Your task to perform on an android device: Clear the shopping cart on amazon. Search for "bose soundlink mini" on amazon, select the first entry, add it to the cart, then select checkout. Image 0: 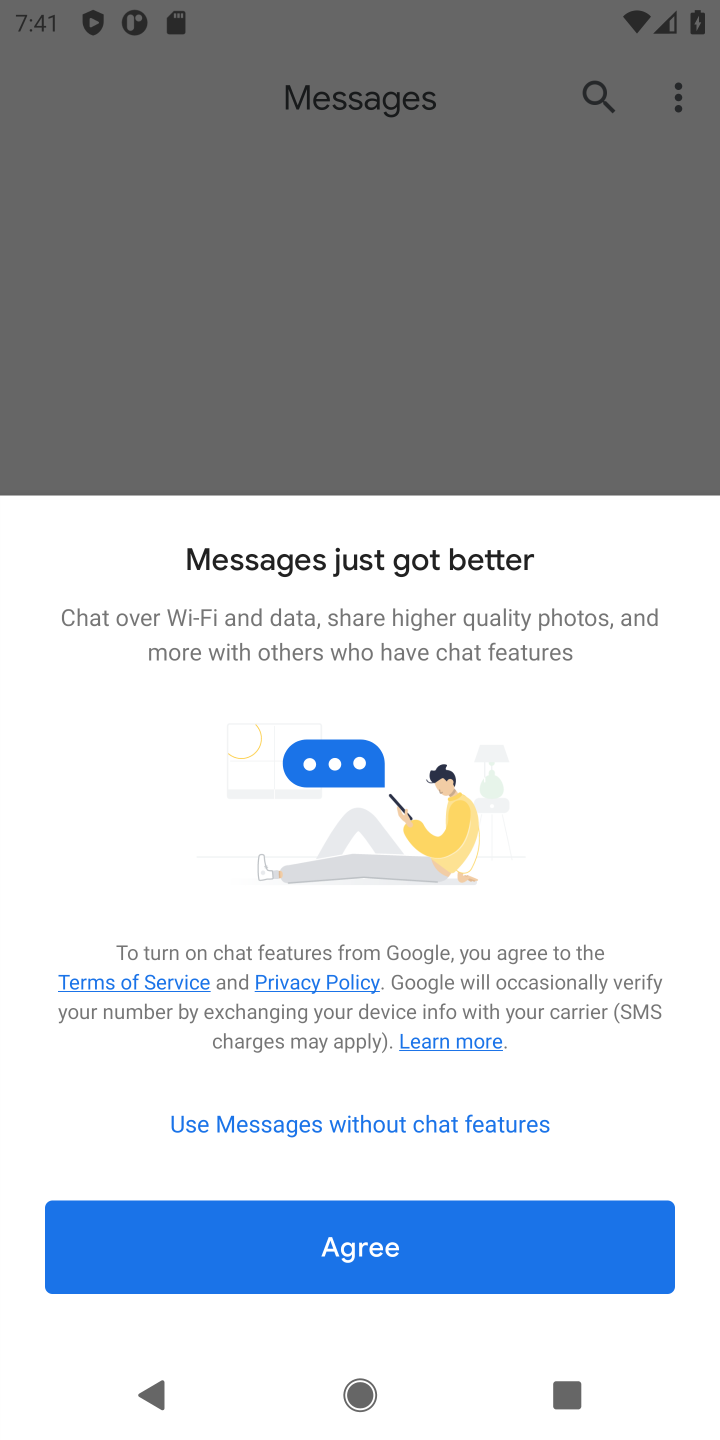
Step 0: press home button
Your task to perform on an android device: Clear the shopping cart on amazon. Search for "bose soundlink mini" on amazon, select the first entry, add it to the cart, then select checkout. Image 1: 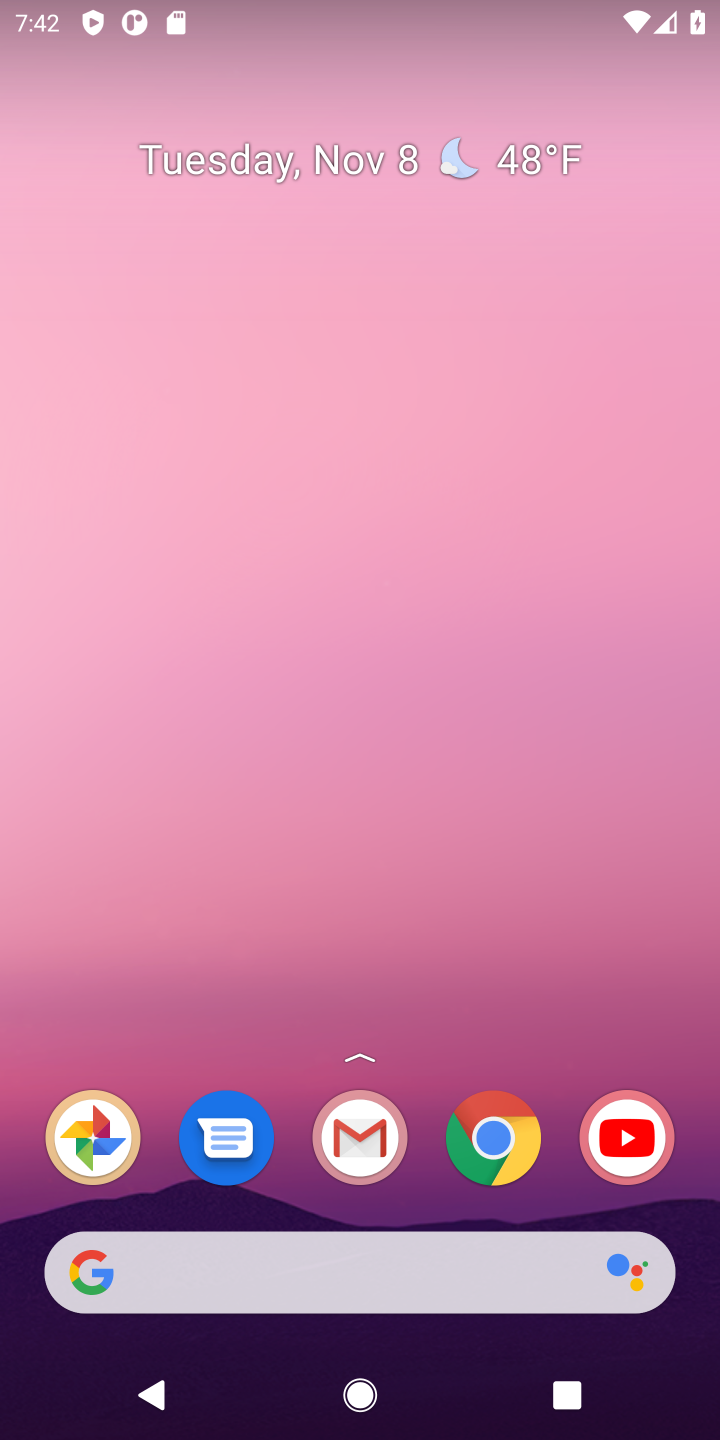
Step 1: click (477, 1140)
Your task to perform on an android device: Clear the shopping cart on amazon. Search for "bose soundlink mini" on amazon, select the first entry, add it to the cart, then select checkout. Image 2: 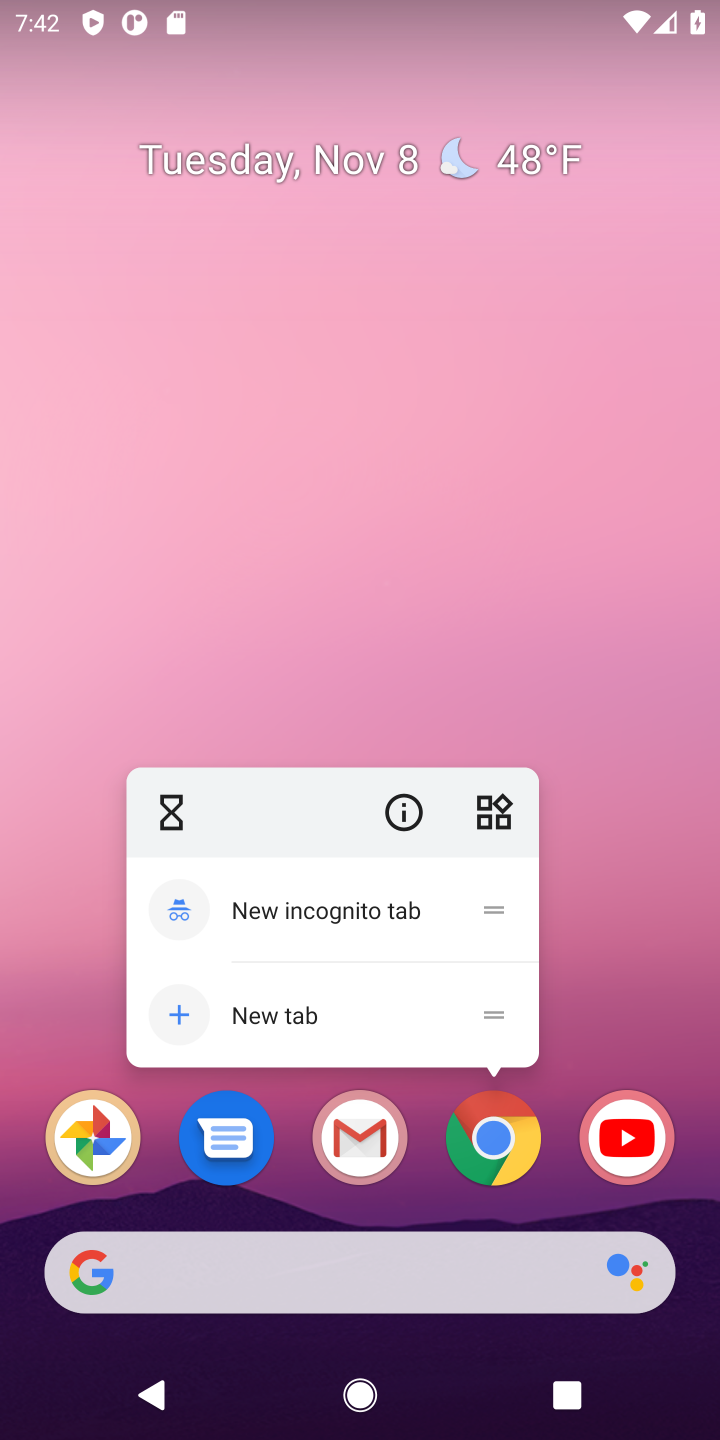
Step 2: click (496, 1140)
Your task to perform on an android device: Clear the shopping cart on amazon. Search for "bose soundlink mini" on amazon, select the first entry, add it to the cart, then select checkout. Image 3: 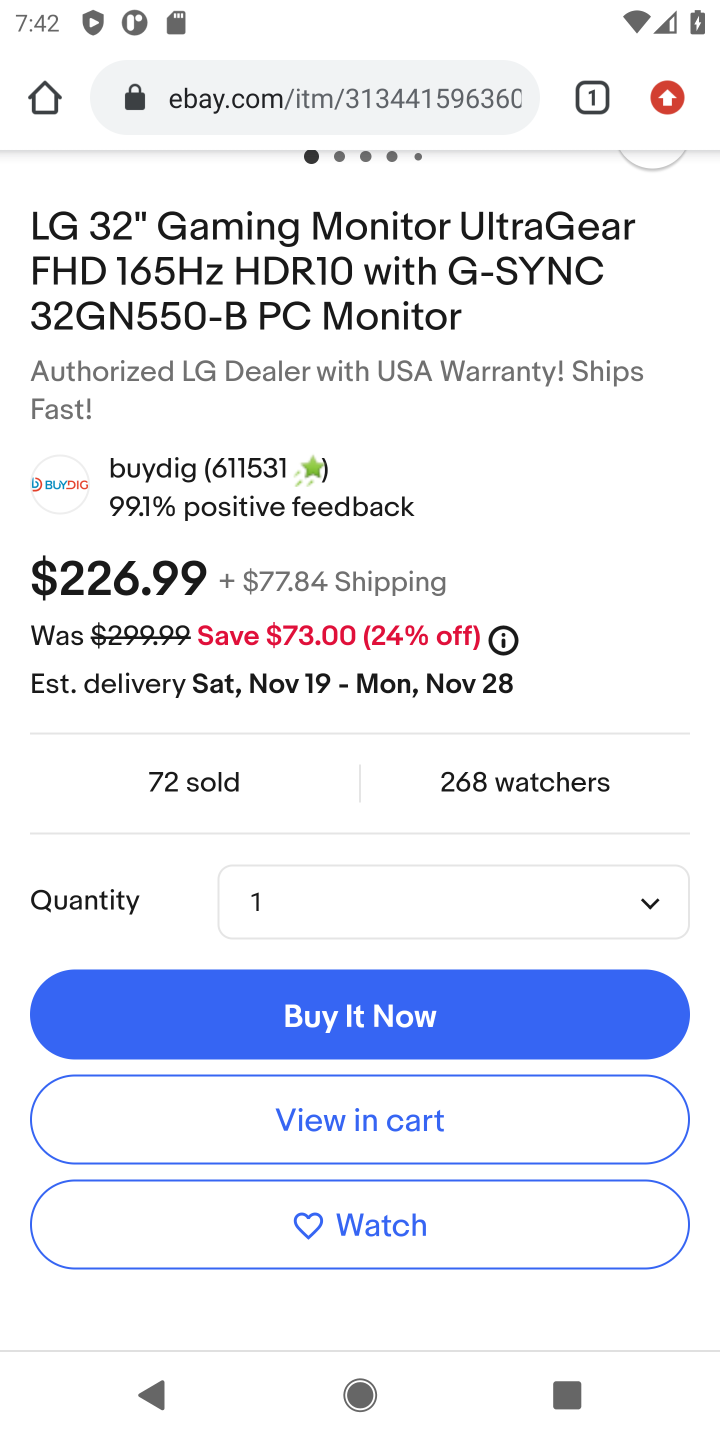
Step 3: click (399, 84)
Your task to perform on an android device: Clear the shopping cart on amazon. Search for "bose soundlink mini" on amazon, select the first entry, add it to the cart, then select checkout. Image 4: 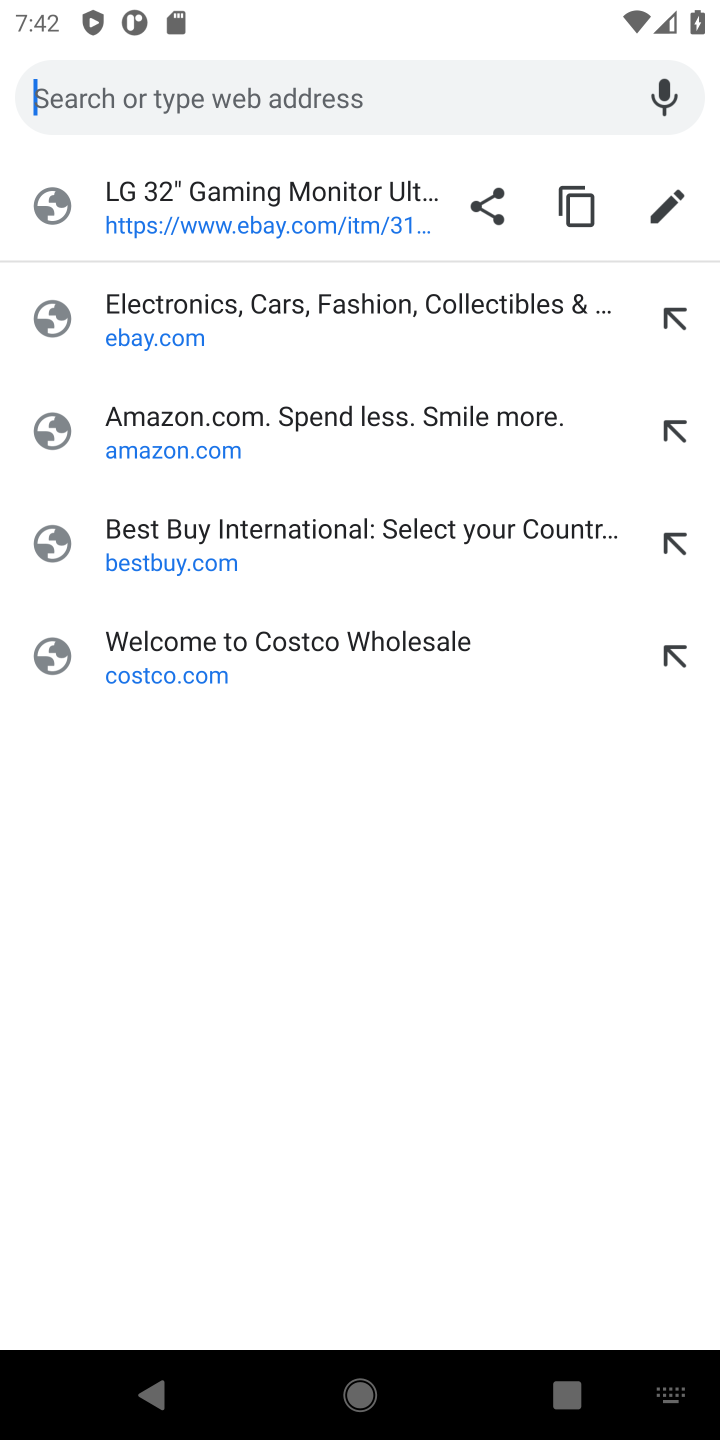
Step 4: click (186, 447)
Your task to perform on an android device: Clear the shopping cart on amazon. Search for "bose soundlink mini" on amazon, select the first entry, add it to the cart, then select checkout. Image 5: 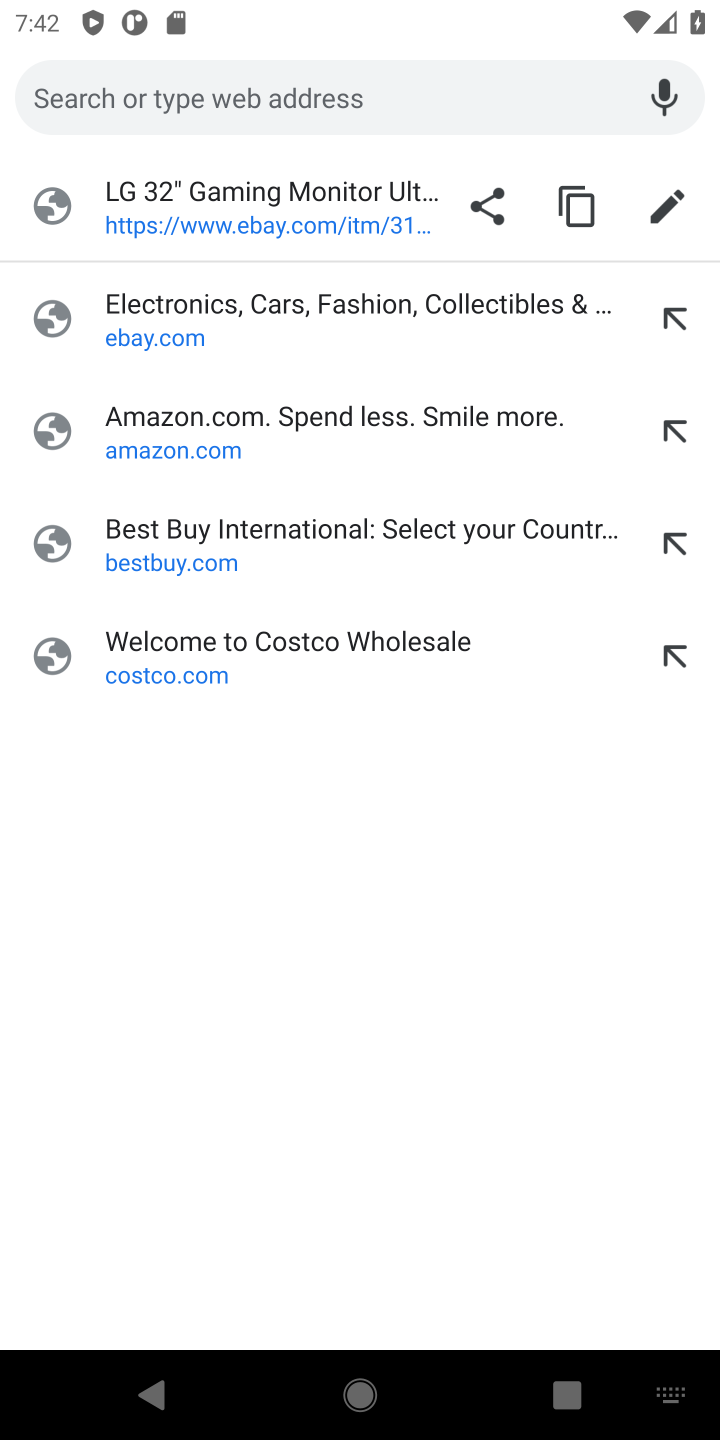
Step 5: click (162, 450)
Your task to perform on an android device: Clear the shopping cart on amazon. Search for "bose soundlink mini" on amazon, select the first entry, add it to the cart, then select checkout. Image 6: 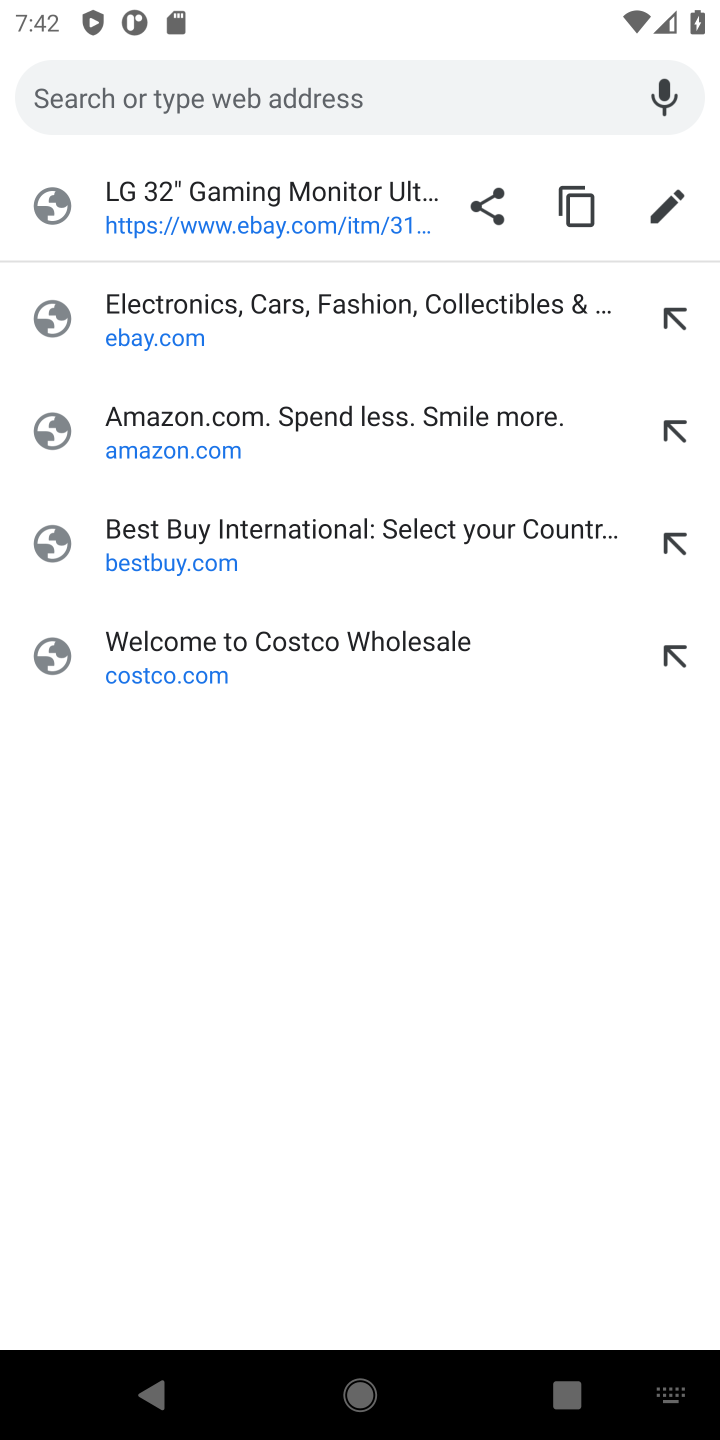
Step 6: click (153, 442)
Your task to perform on an android device: Clear the shopping cart on amazon. Search for "bose soundlink mini" on amazon, select the first entry, add it to the cart, then select checkout. Image 7: 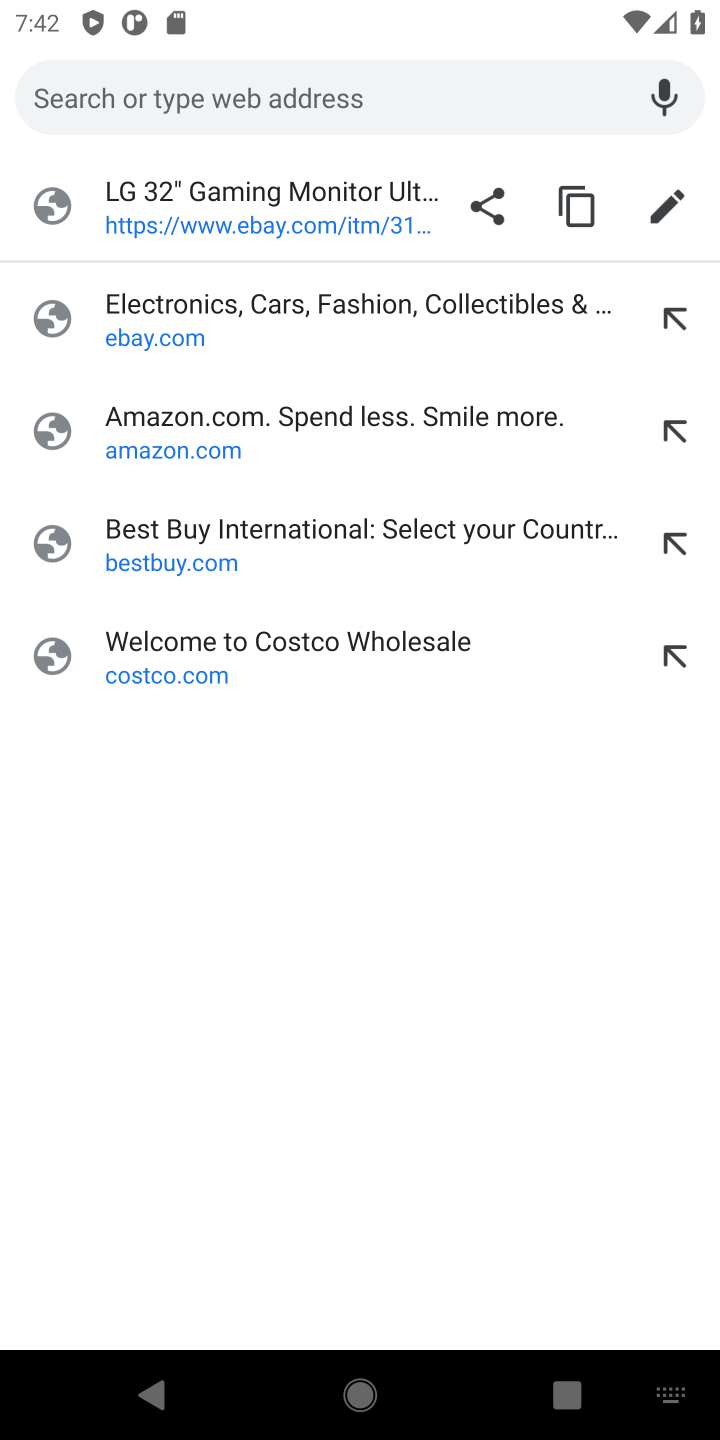
Step 7: click (173, 408)
Your task to perform on an android device: Clear the shopping cart on amazon. Search for "bose soundlink mini" on amazon, select the first entry, add it to the cart, then select checkout. Image 8: 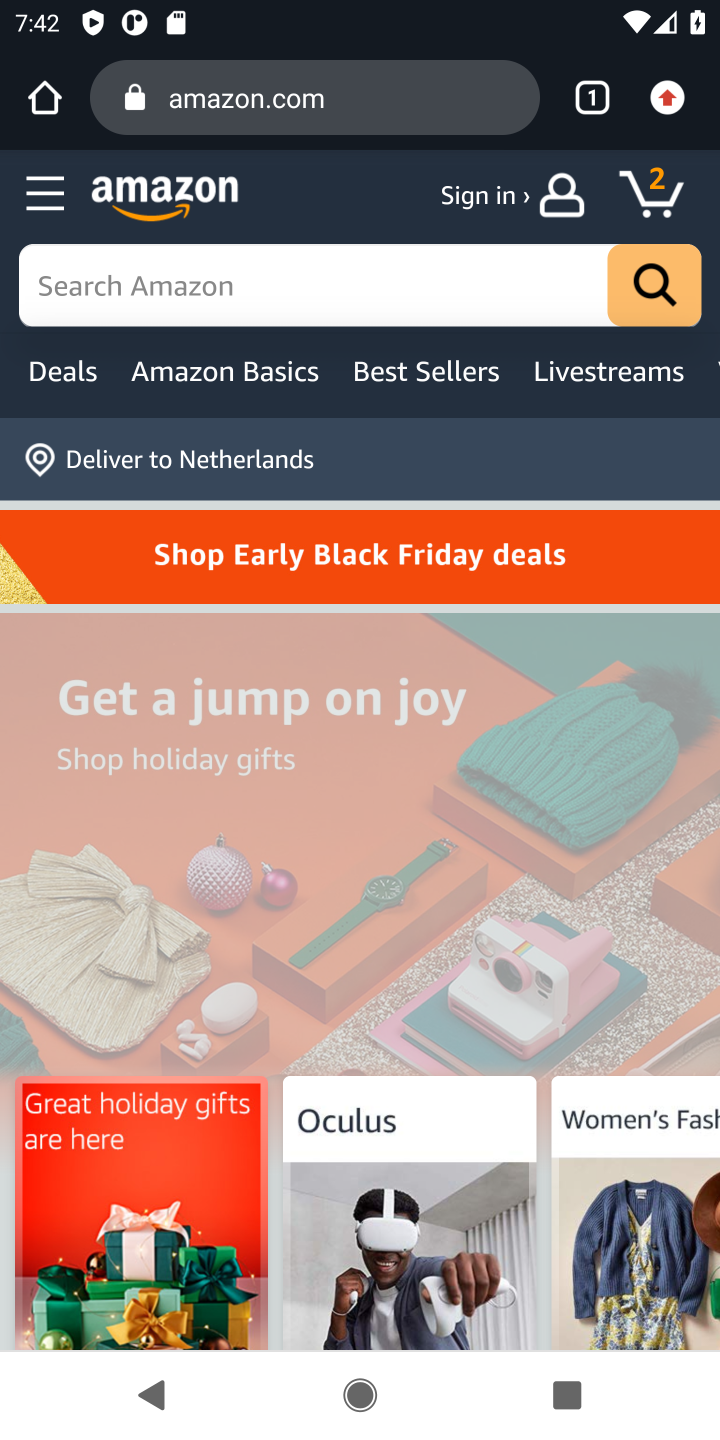
Step 8: click (643, 183)
Your task to perform on an android device: Clear the shopping cart on amazon. Search for "bose soundlink mini" on amazon, select the first entry, add it to the cart, then select checkout. Image 9: 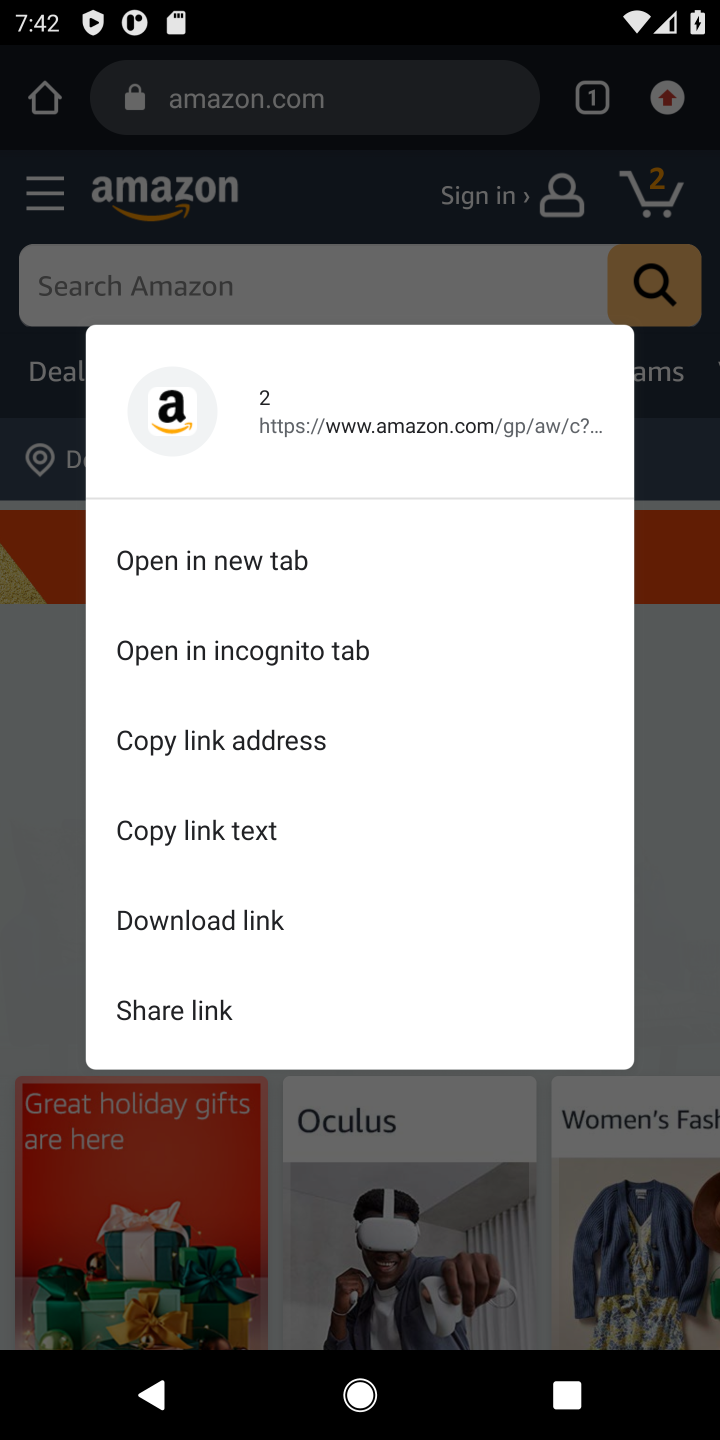
Step 9: click (662, 194)
Your task to perform on an android device: Clear the shopping cart on amazon. Search for "bose soundlink mini" on amazon, select the first entry, add it to the cart, then select checkout. Image 10: 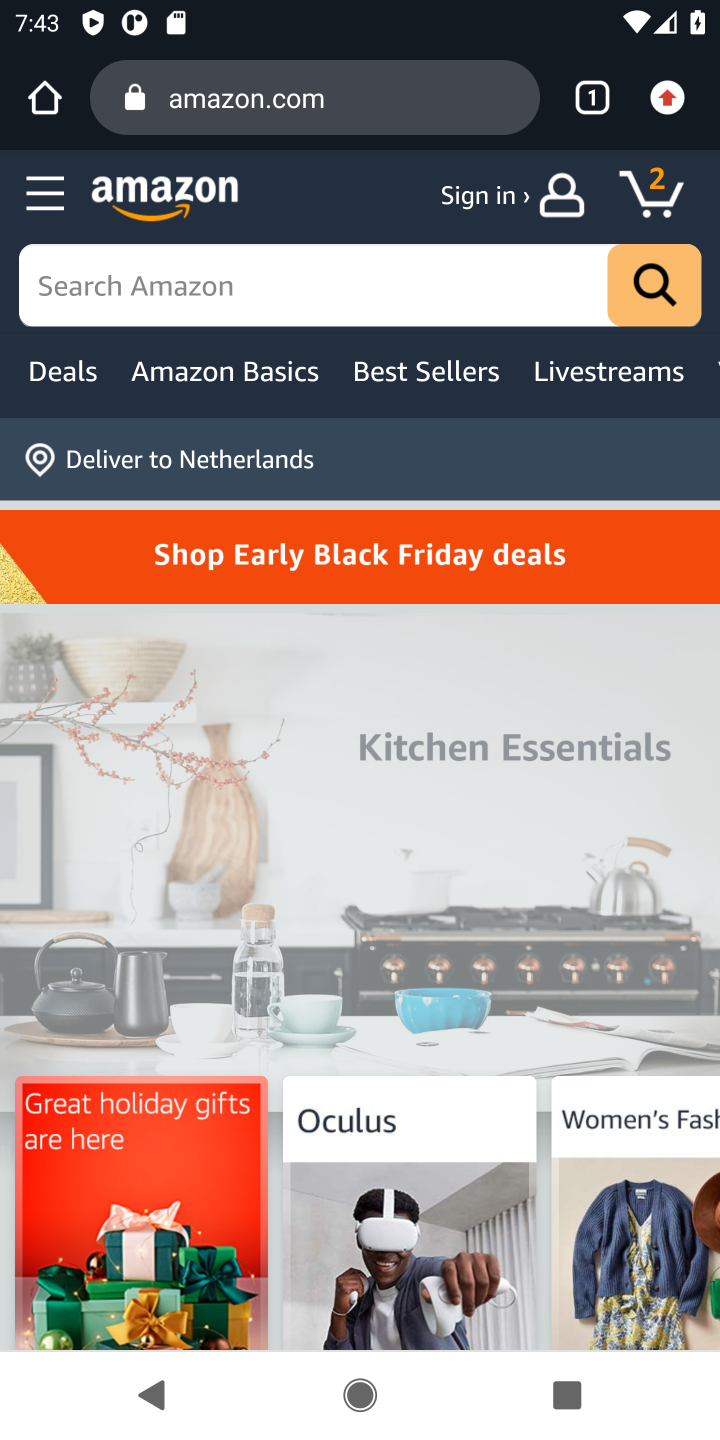
Step 10: click (666, 178)
Your task to perform on an android device: Clear the shopping cart on amazon. Search for "bose soundlink mini" on amazon, select the first entry, add it to the cart, then select checkout. Image 11: 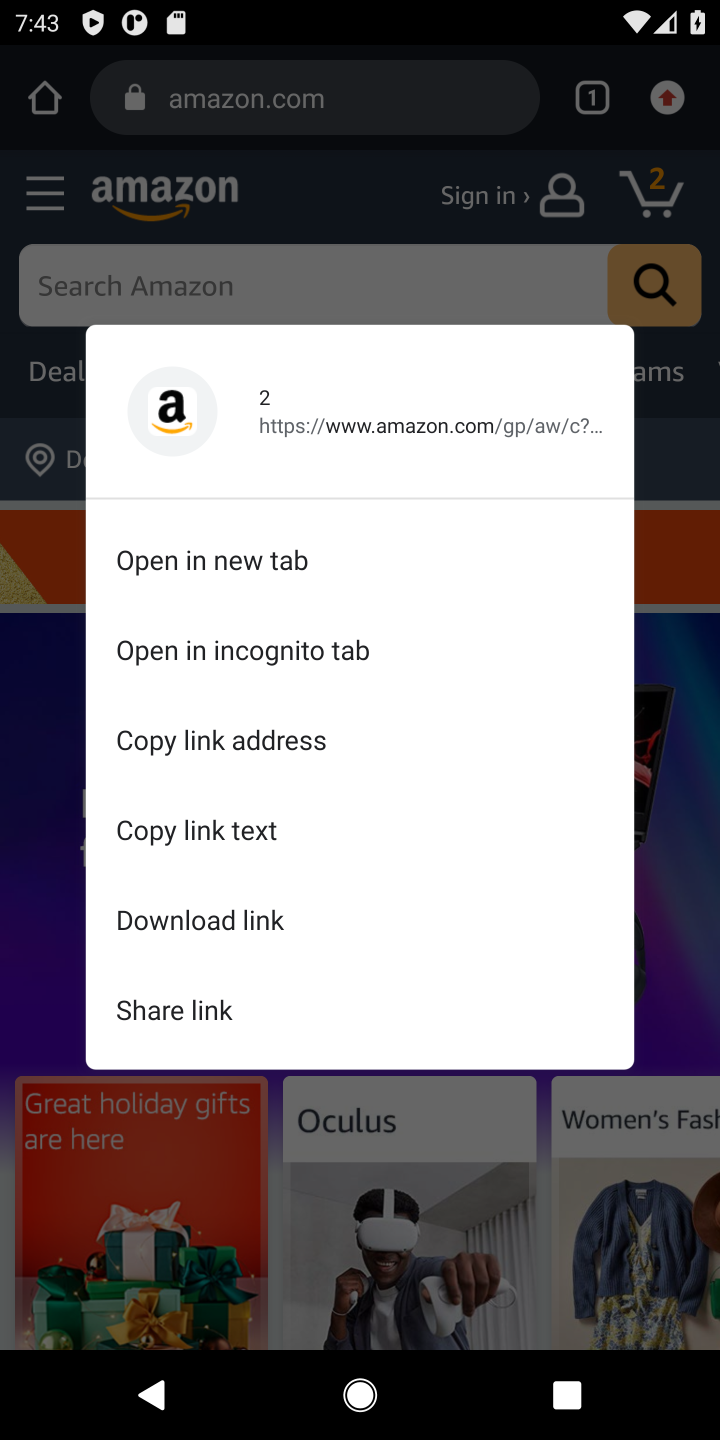
Step 11: click (668, 190)
Your task to perform on an android device: Clear the shopping cart on amazon. Search for "bose soundlink mini" on amazon, select the first entry, add it to the cart, then select checkout. Image 12: 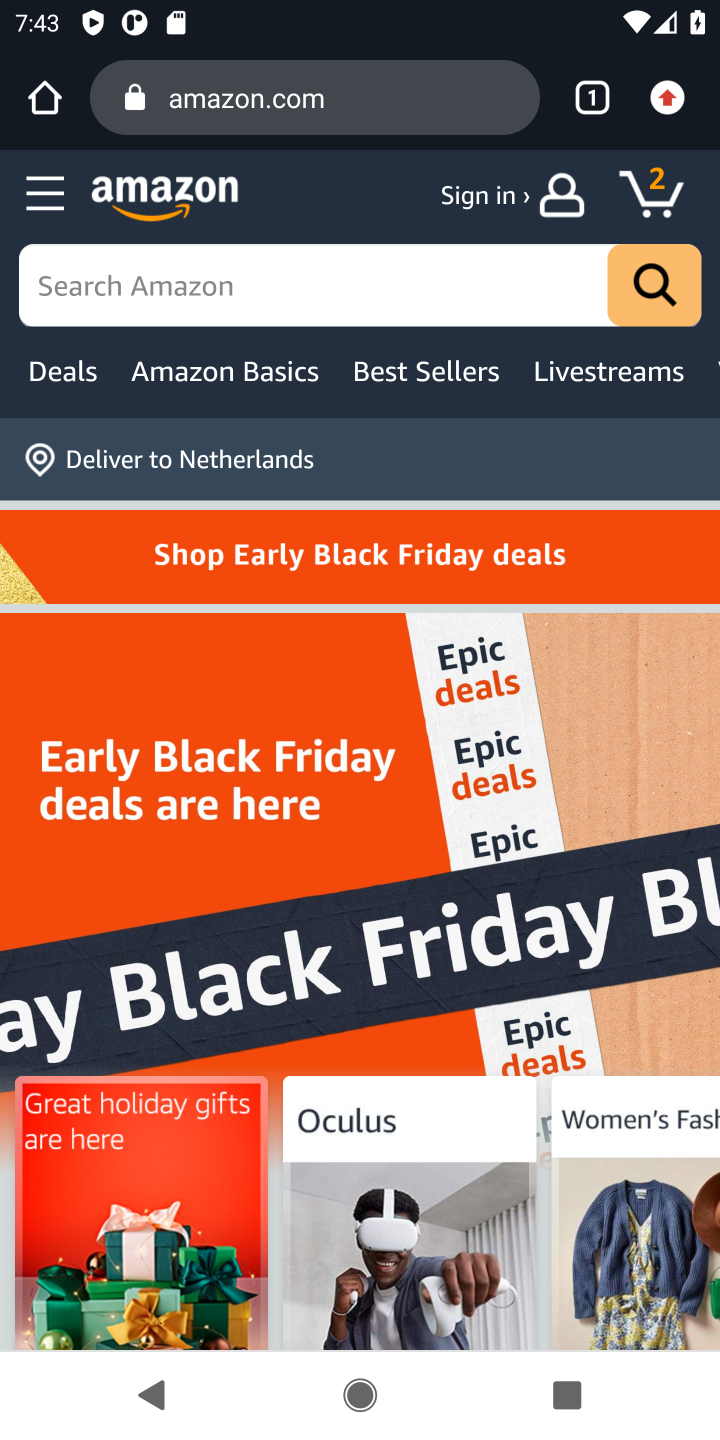
Step 12: click (668, 190)
Your task to perform on an android device: Clear the shopping cart on amazon. Search for "bose soundlink mini" on amazon, select the first entry, add it to the cart, then select checkout. Image 13: 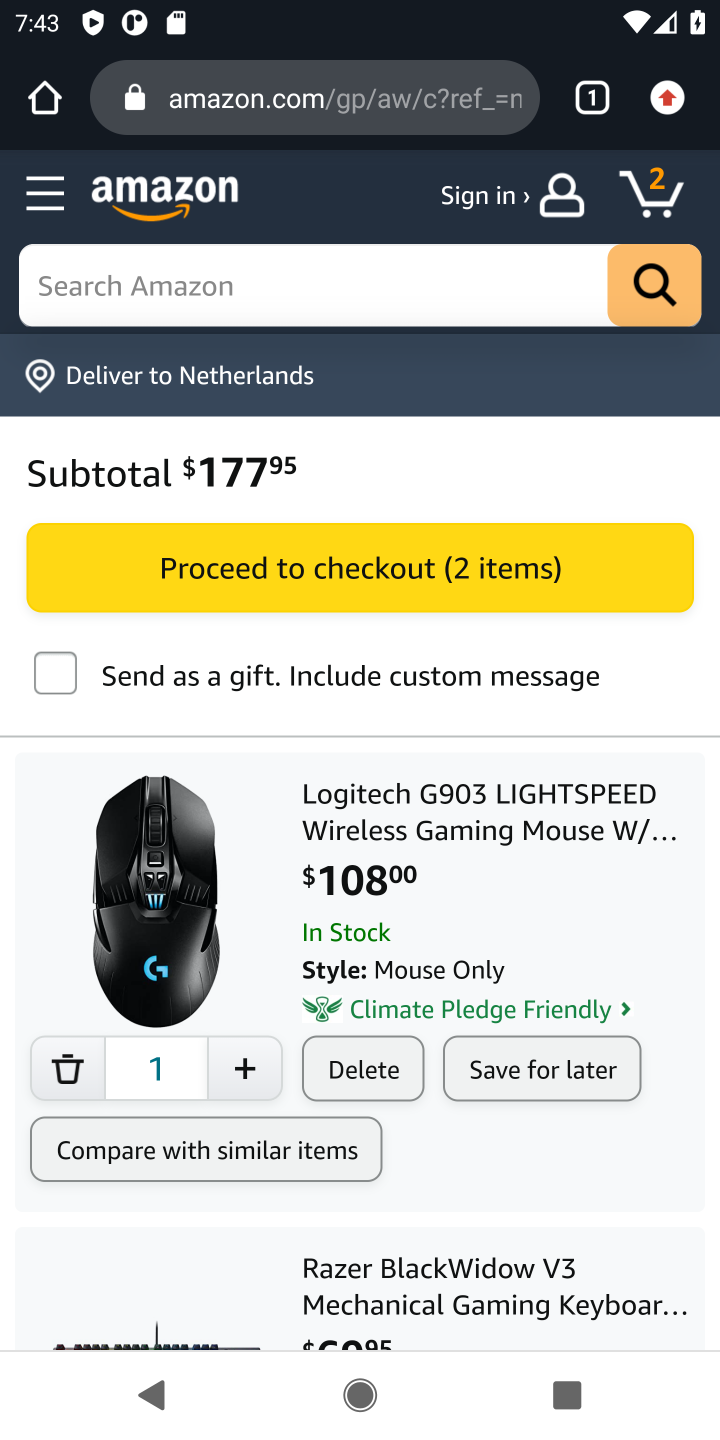
Step 13: click (357, 1068)
Your task to perform on an android device: Clear the shopping cart on amazon. Search for "bose soundlink mini" on amazon, select the first entry, add it to the cart, then select checkout. Image 14: 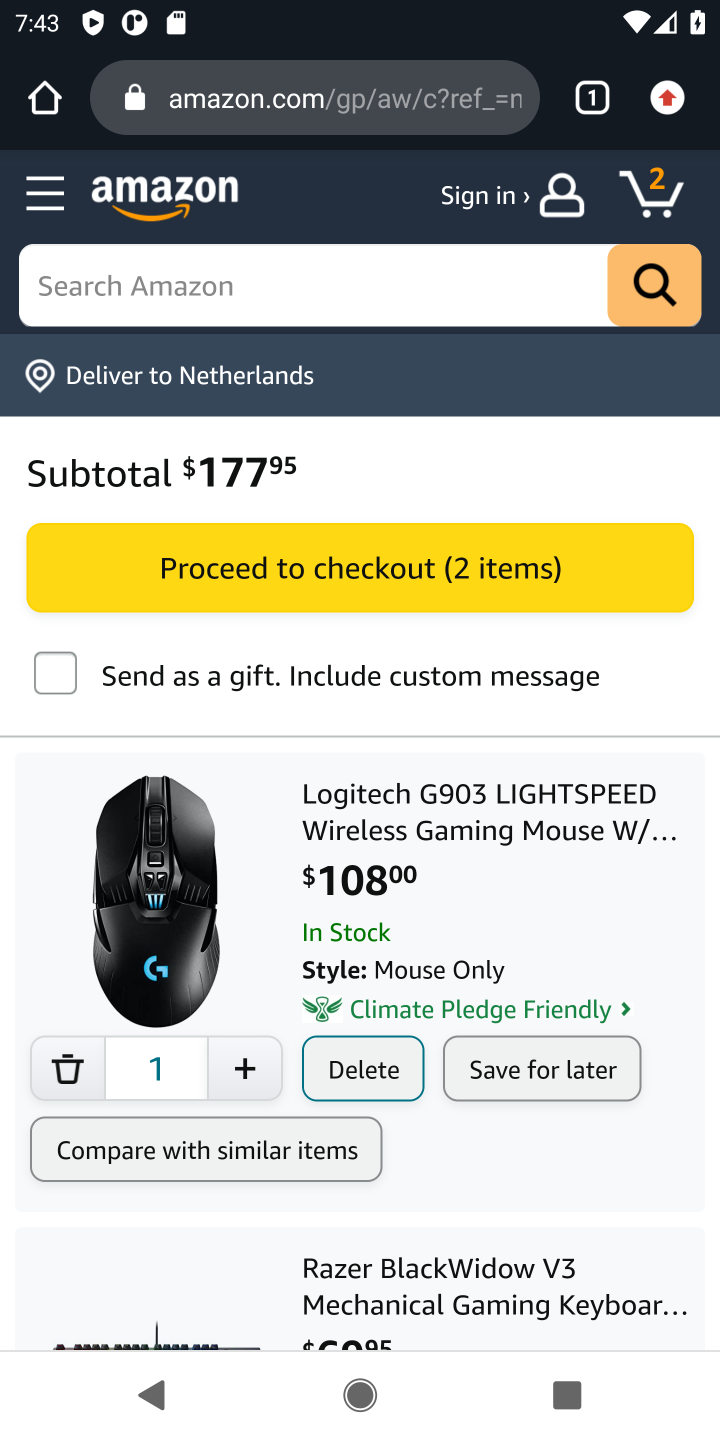
Step 14: click (371, 1064)
Your task to perform on an android device: Clear the shopping cart on amazon. Search for "bose soundlink mini" on amazon, select the first entry, add it to the cart, then select checkout. Image 15: 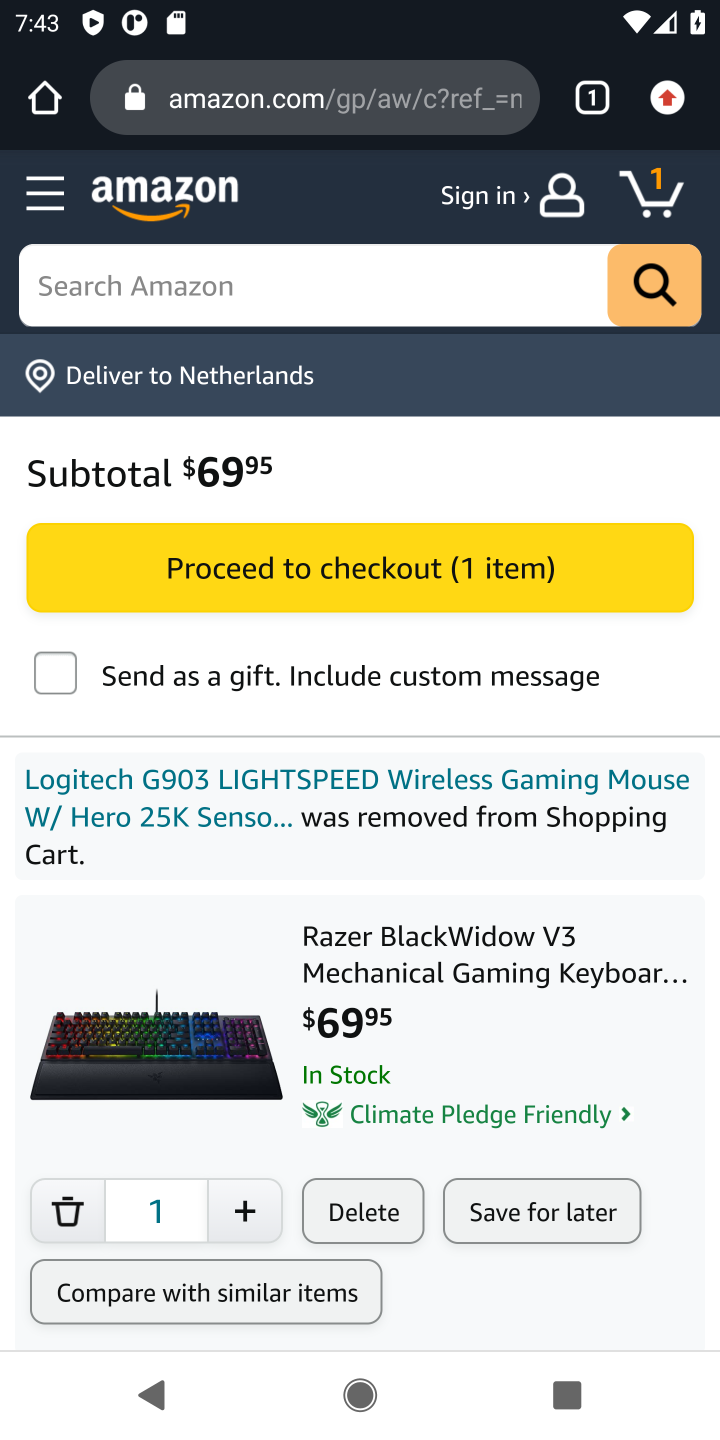
Step 15: click (367, 1210)
Your task to perform on an android device: Clear the shopping cart on amazon. Search for "bose soundlink mini" on amazon, select the first entry, add it to the cart, then select checkout. Image 16: 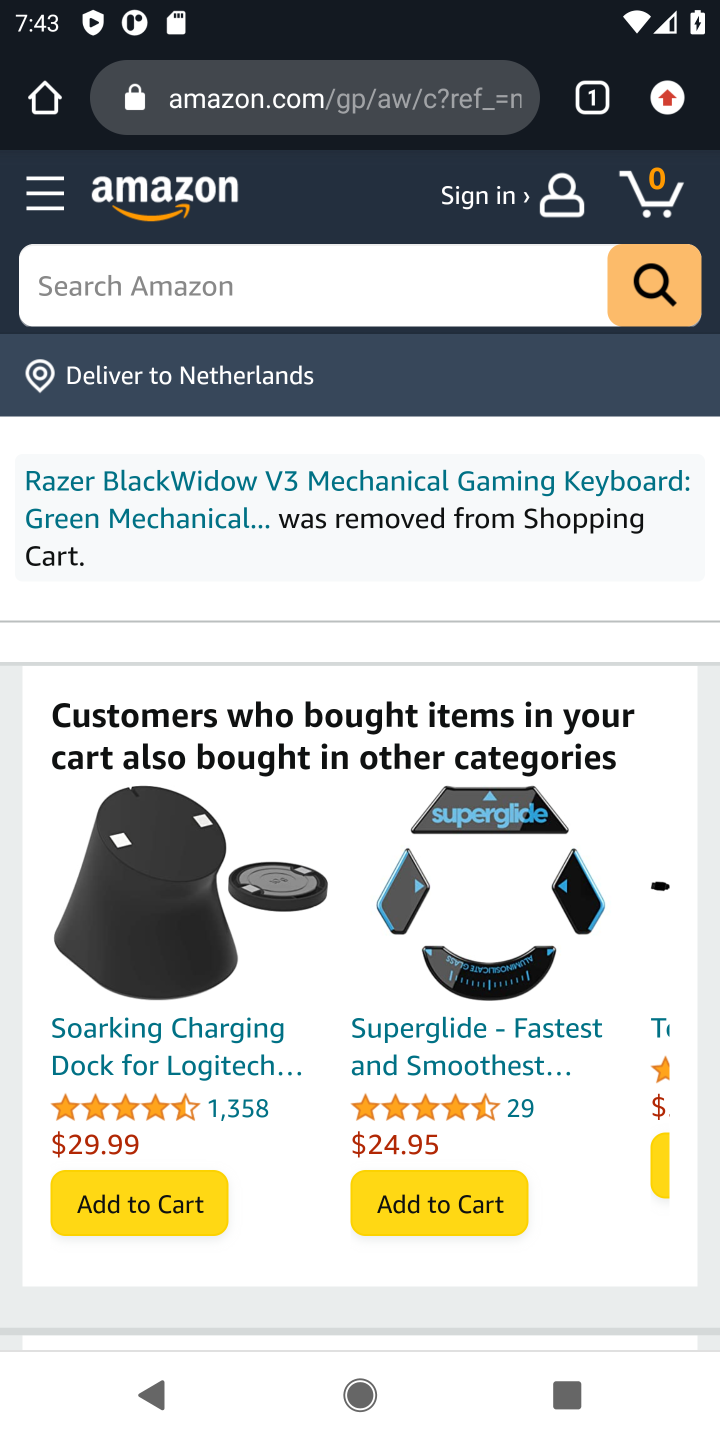
Step 16: click (285, 279)
Your task to perform on an android device: Clear the shopping cart on amazon. Search for "bose soundlink mini" on amazon, select the first entry, add it to the cart, then select checkout. Image 17: 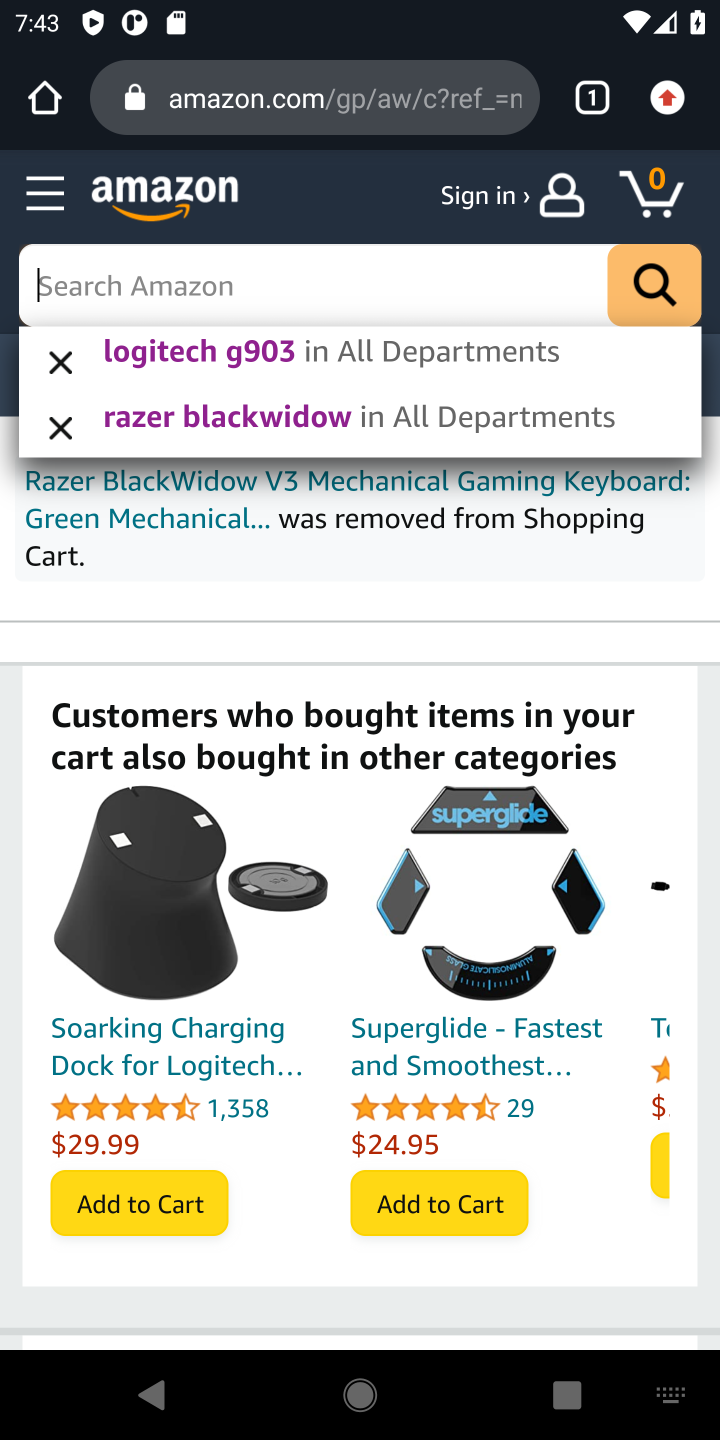
Step 17: type "bose soundlink mini"
Your task to perform on an android device: Clear the shopping cart on amazon. Search for "bose soundlink mini" on amazon, select the first entry, add it to the cart, then select checkout. Image 18: 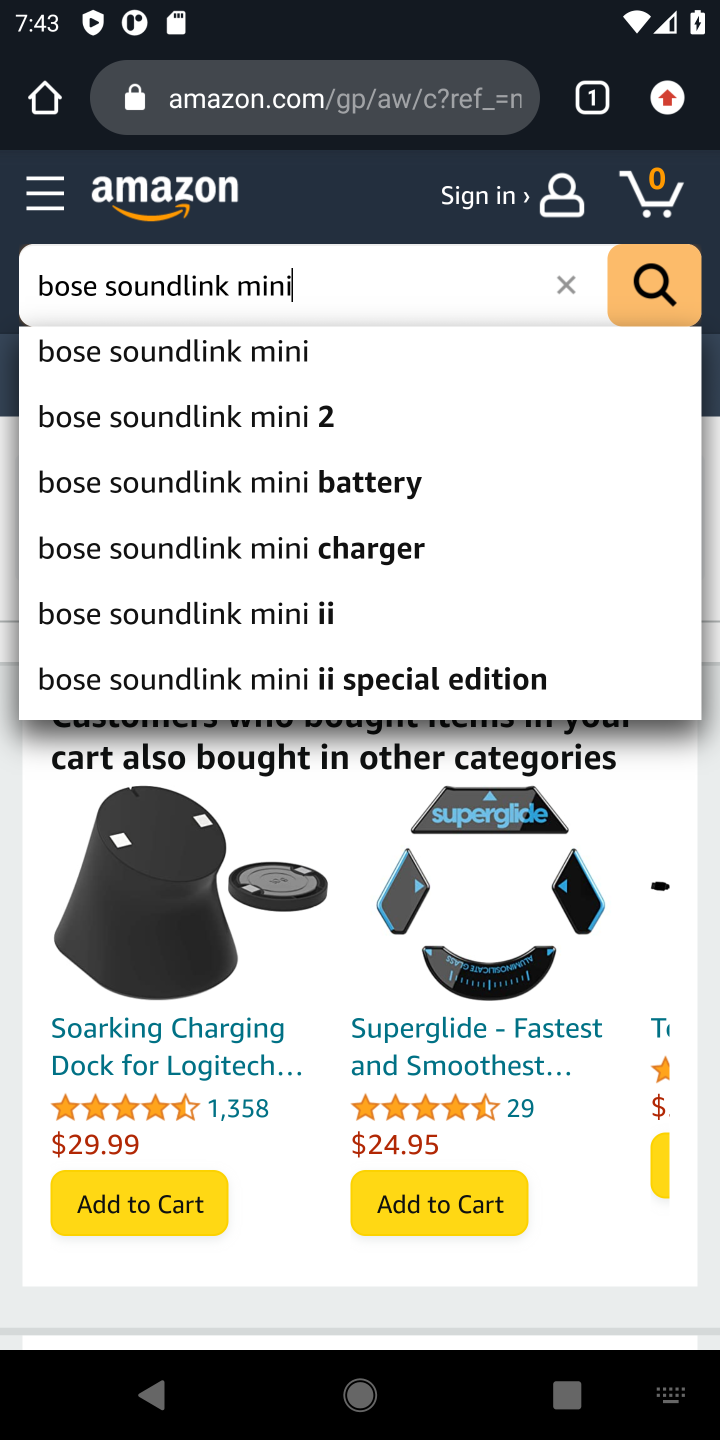
Step 18: press enter
Your task to perform on an android device: Clear the shopping cart on amazon. Search for "bose soundlink mini" on amazon, select the first entry, add it to the cart, then select checkout. Image 19: 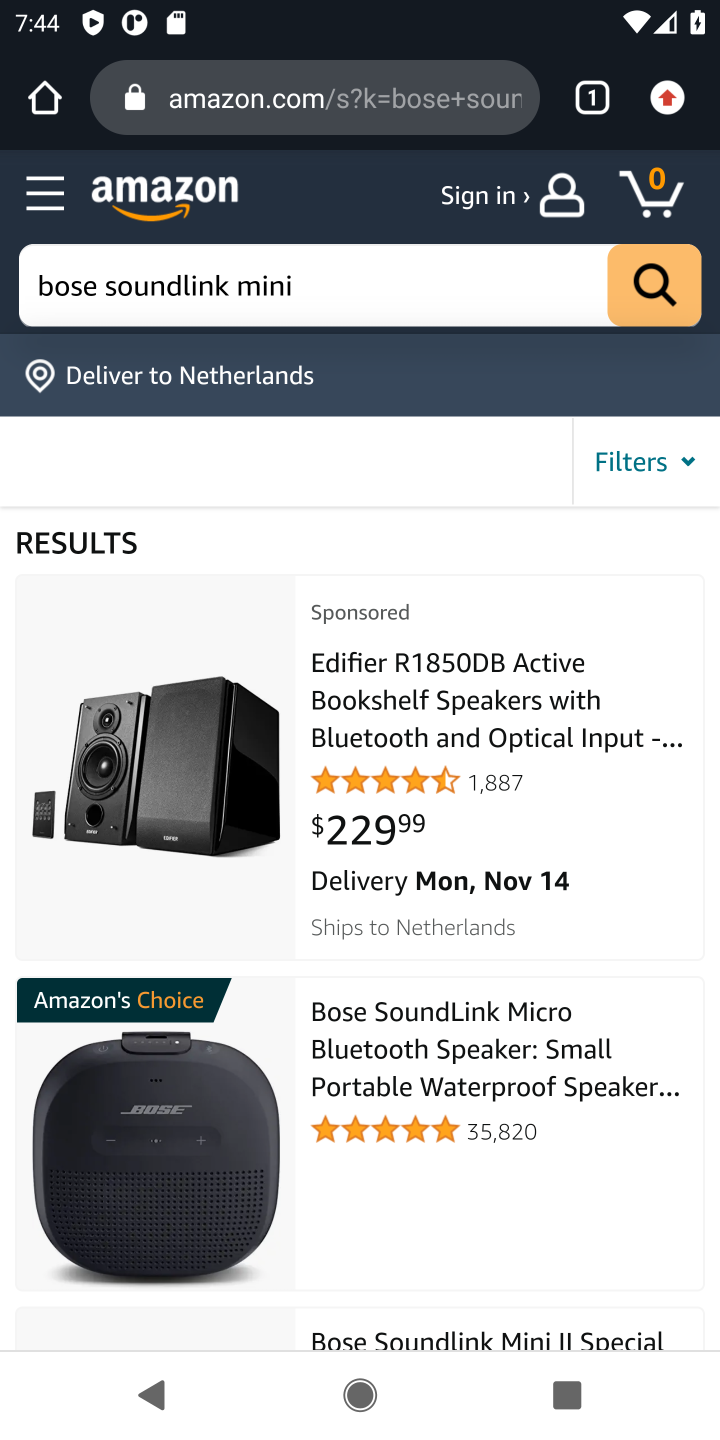
Step 19: task complete